Your task to perform on an android device: Open Google Chrome and click the shortcut for Amazon.com Image 0: 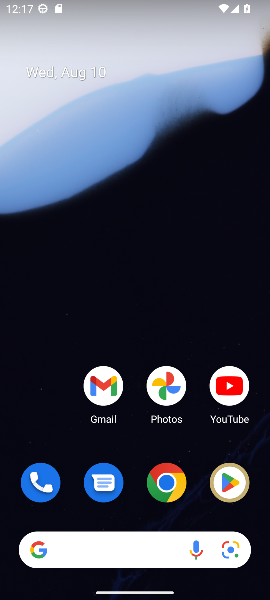
Step 0: drag from (49, 433) to (76, 128)
Your task to perform on an android device: Open Google Chrome and click the shortcut for Amazon.com Image 1: 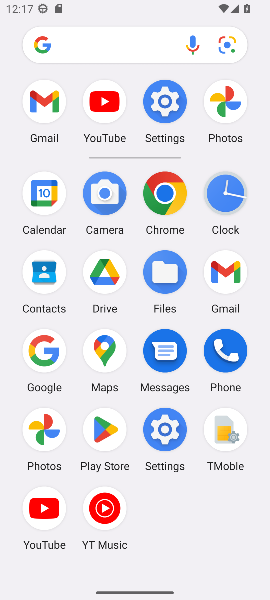
Step 1: click (153, 203)
Your task to perform on an android device: Open Google Chrome and click the shortcut for Amazon.com Image 2: 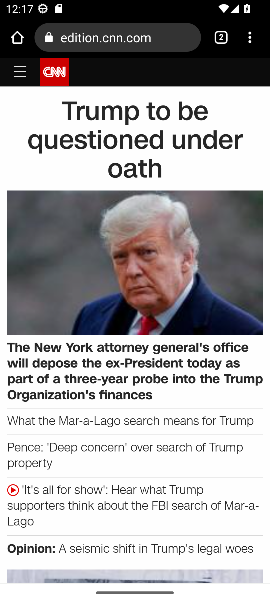
Step 2: click (257, 38)
Your task to perform on an android device: Open Google Chrome and click the shortcut for Amazon.com Image 3: 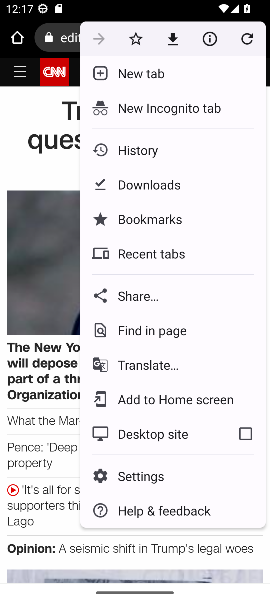
Step 3: click (157, 75)
Your task to perform on an android device: Open Google Chrome and click the shortcut for Amazon.com Image 4: 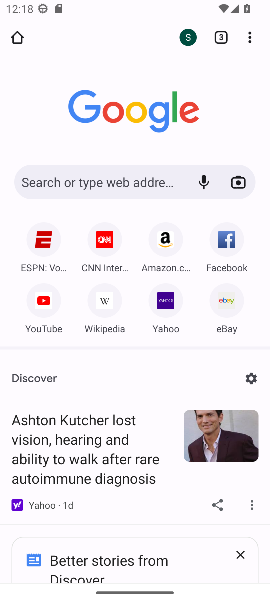
Step 4: click (168, 256)
Your task to perform on an android device: Open Google Chrome and click the shortcut for Amazon.com Image 5: 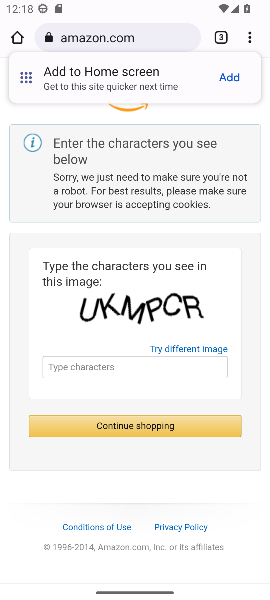
Step 5: task complete